Your task to perform on an android device: find photos in the google photos app Image 0: 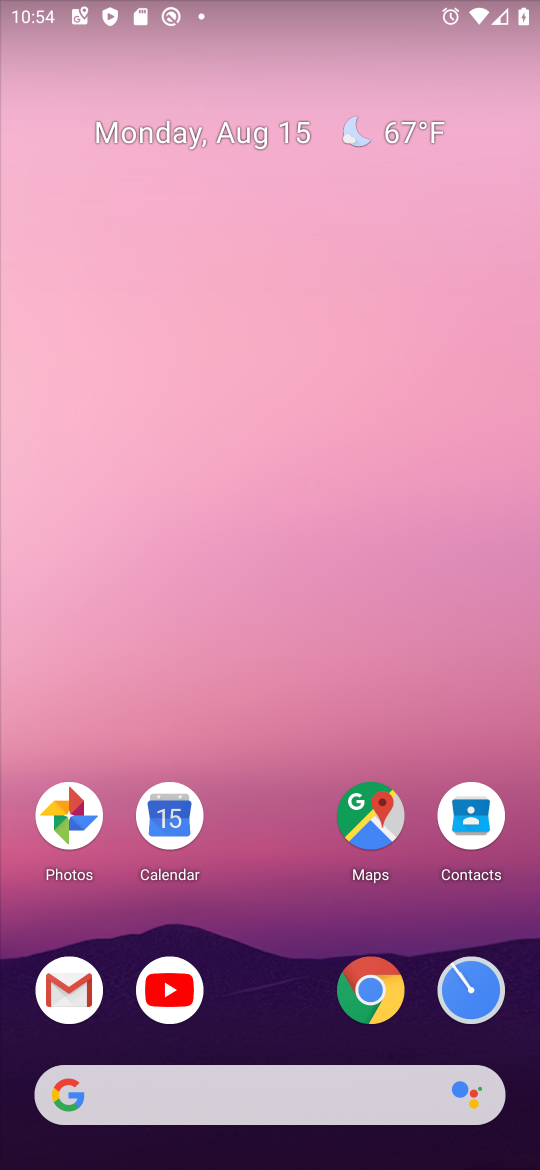
Step 0: click (63, 804)
Your task to perform on an android device: find photos in the google photos app Image 1: 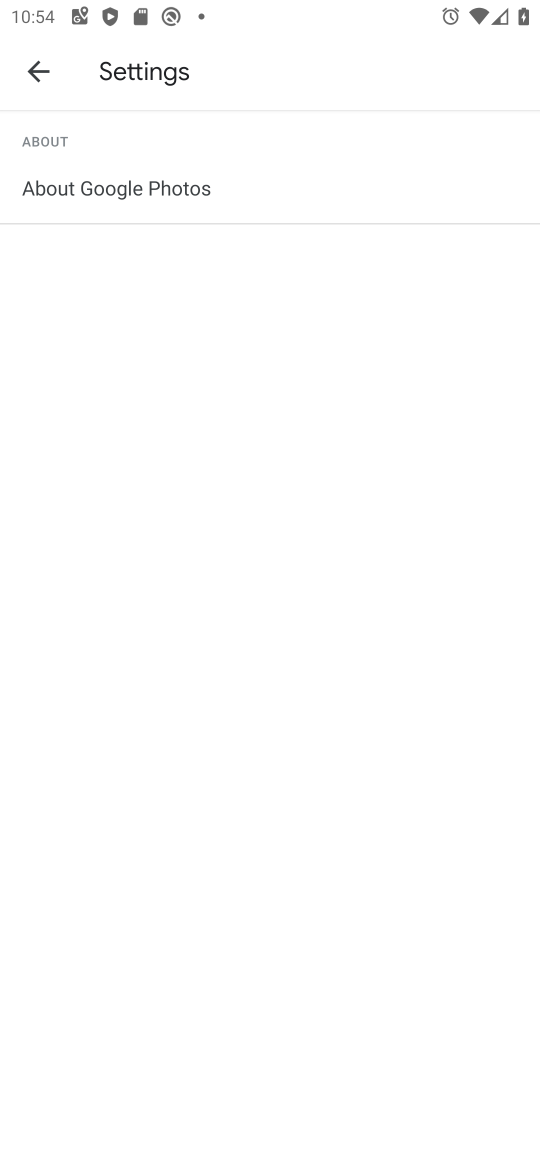
Step 1: click (42, 80)
Your task to perform on an android device: find photos in the google photos app Image 2: 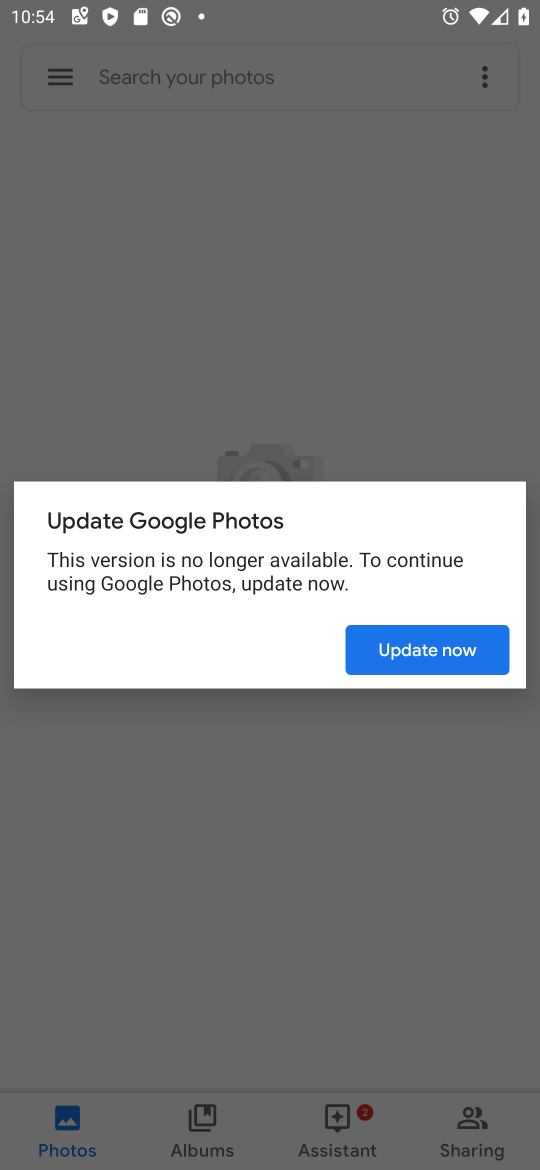
Step 2: click (425, 654)
Your task to perform on an android device: find photos in the google photos app Image 3: 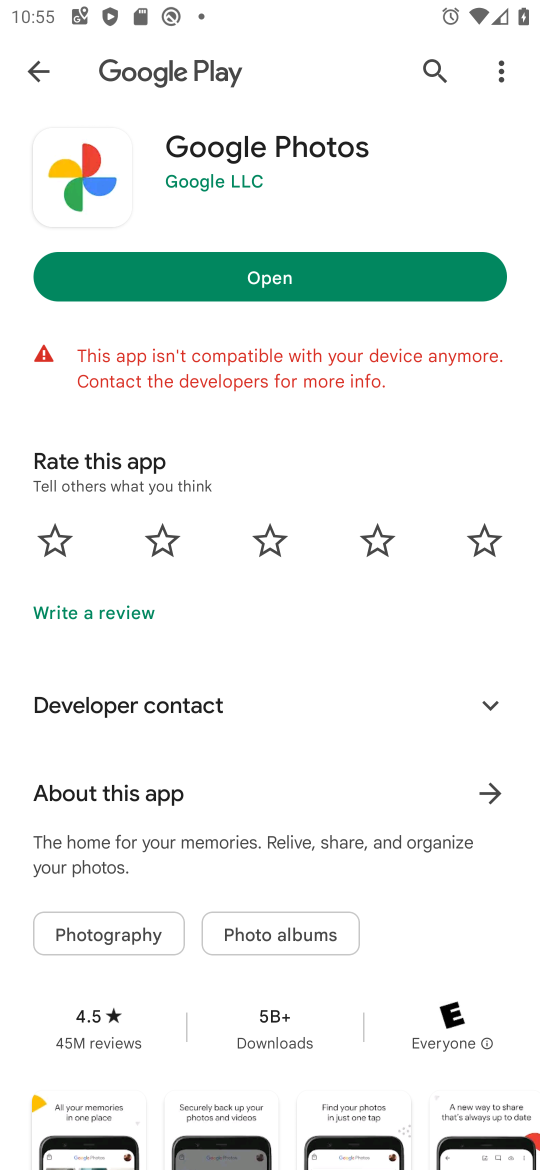
Step 3: click (273, 269)
Your task to perform on an android device: find photos in the google photos app Image 4: 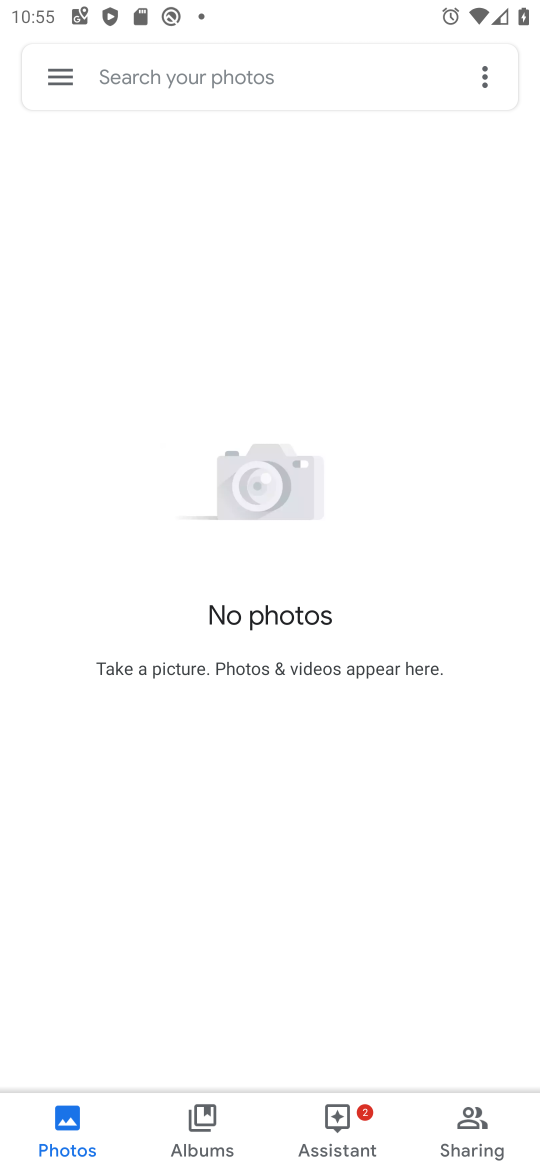
Step 4: click (185, 70)
Your task to perform on an android device: find photos in the google photos app Image 5: 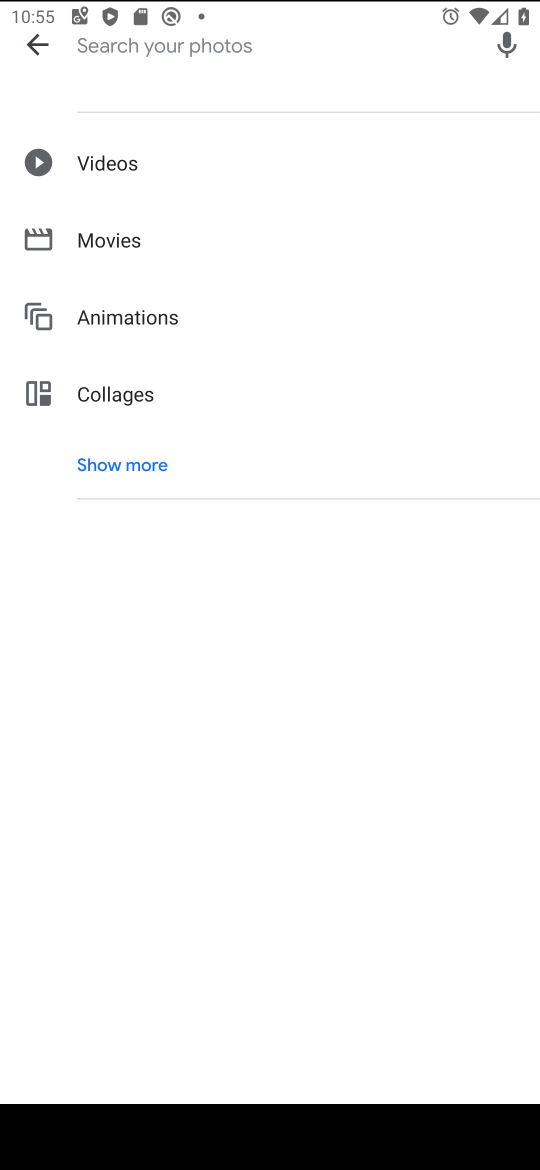
Step 5: task complete